Your task to perform on an android device: Go to Android settings Image 0: 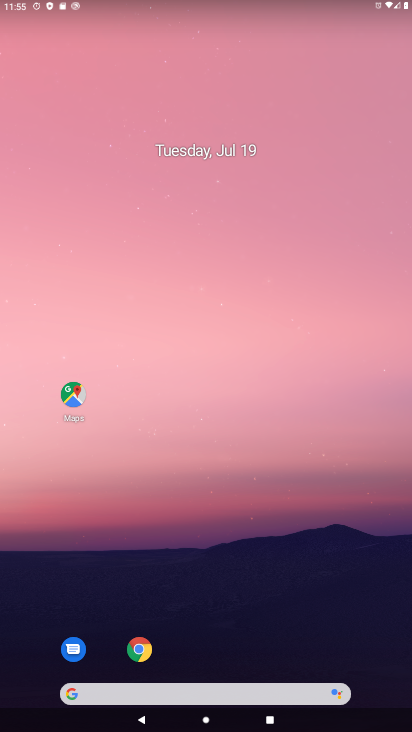
Step 0: drag from (242, 699) to (249, 275)
Your task to perform on an android device: Go to Android settings Image 1: 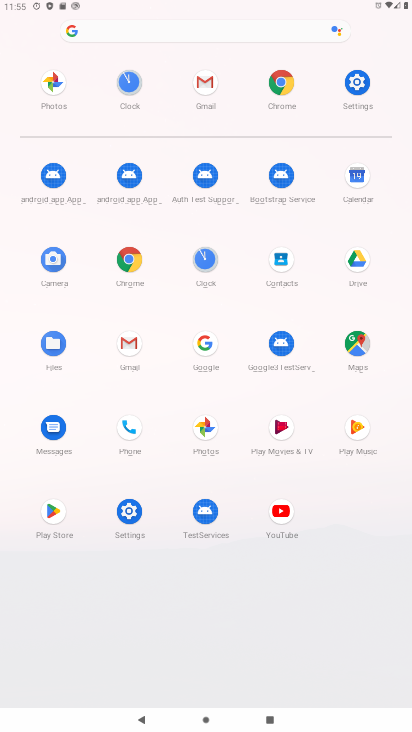
Step 1: click (357, 77)
Your task to perform on an android device: Go to Android settings Image 2: 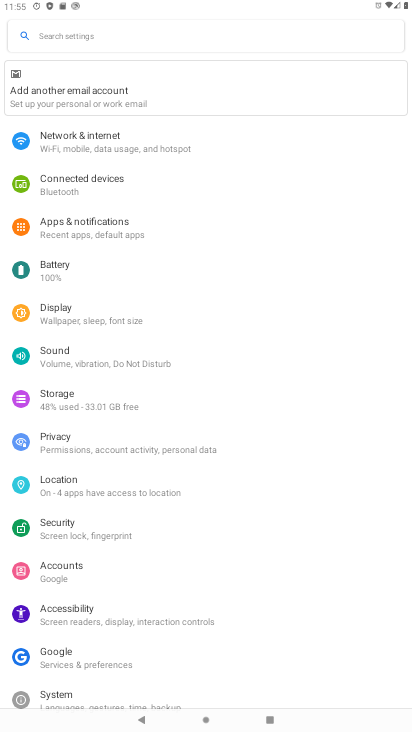
Step 2: task complete